Your task to perform on an android device: Turn on the flashlight Image 0: 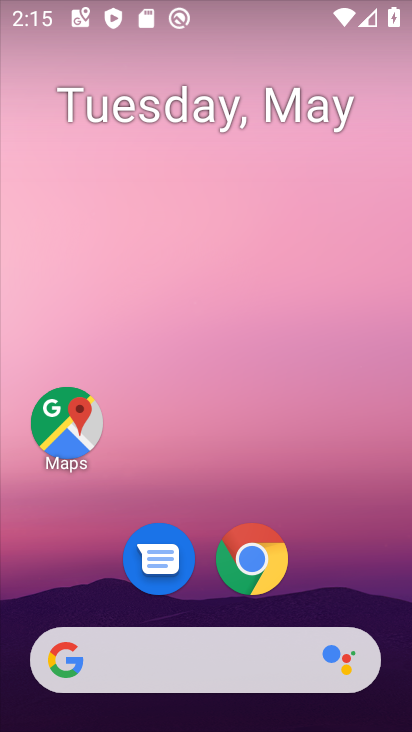
Step 0: drag from (271, 1) to (302, 351)
Your task to perform on an android device: Turn on the flashlight Image 1: 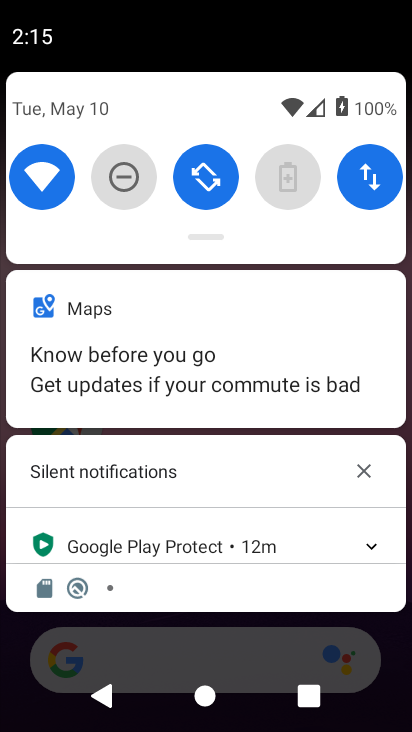
Step 1: task complete